Your task to perform on an android device: Open settings Image 0: 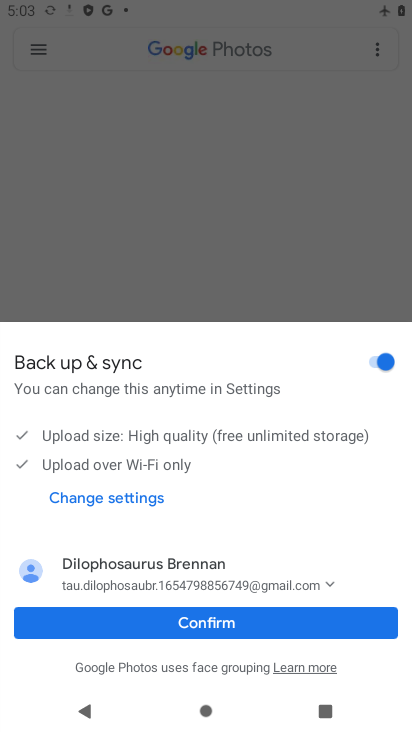
Step 0: click (226, 634)
Your task to perform on an android device: Open settings Image 1: 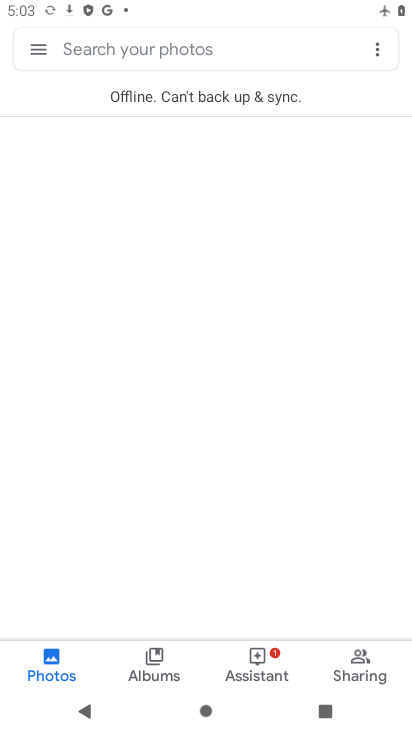
Step 1: press home button
Your task to perform on an android device: Open settings Image 2: 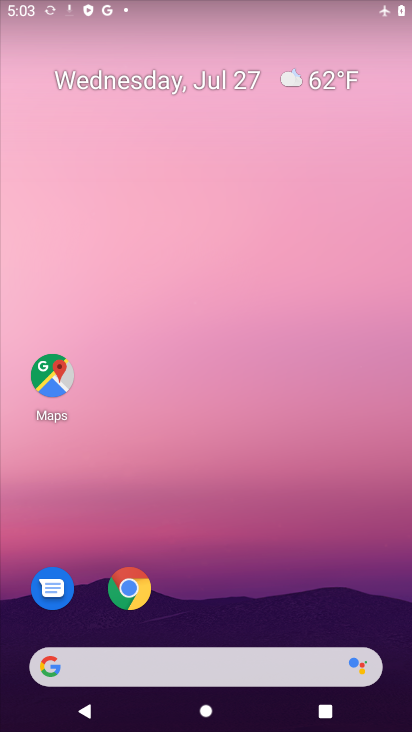
Step 2: drag from (201, 594) to (210, 50)
Your task to perform on an android device: Open settings Image 3: 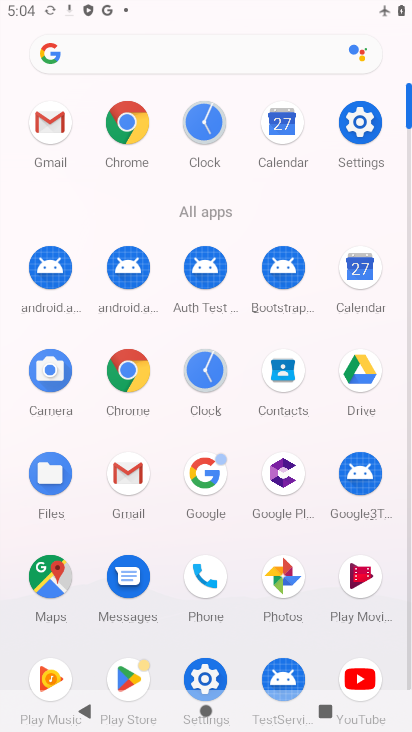
Step 3: click (366, 121)
Your task to perform on an android device: Open settings Image 4: 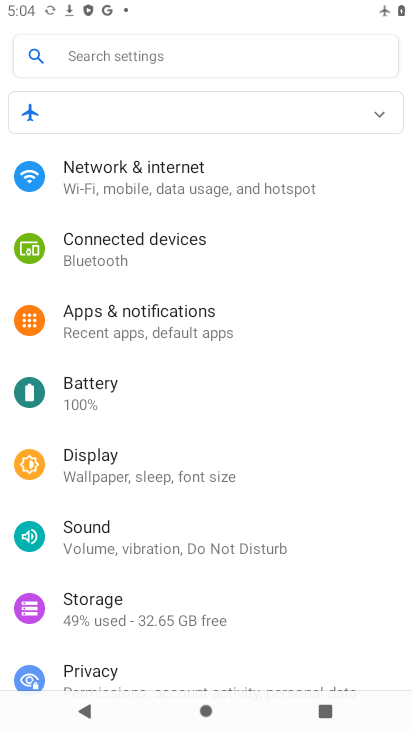
Step 4: task complete